Your task to perform on an android device: Open the web browser Image 0: 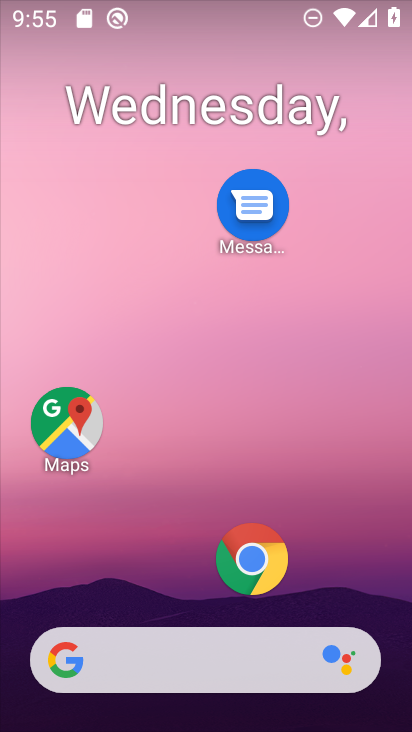
Step 0: drag from (161, 591) to (154, 155)
Your task to perform on an android device: Open the web browser Image 1: 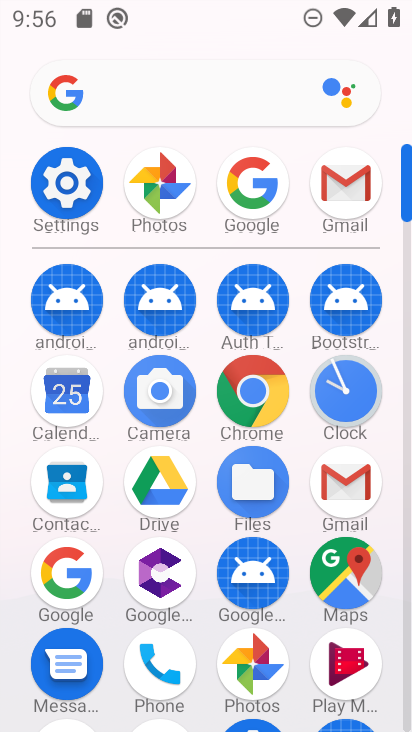
Step 1: click (248, 410)
Your task to perform on an android device: Open the web browser Image 2: 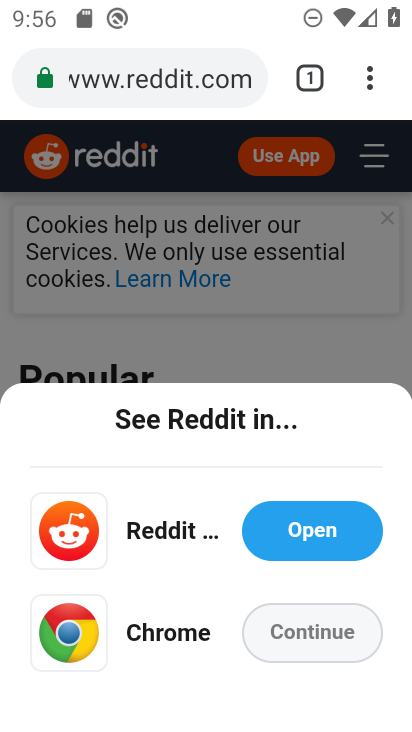
Step 2: task complete